Your task to perform on an android device: Open Maps and search for coffee Image 0: 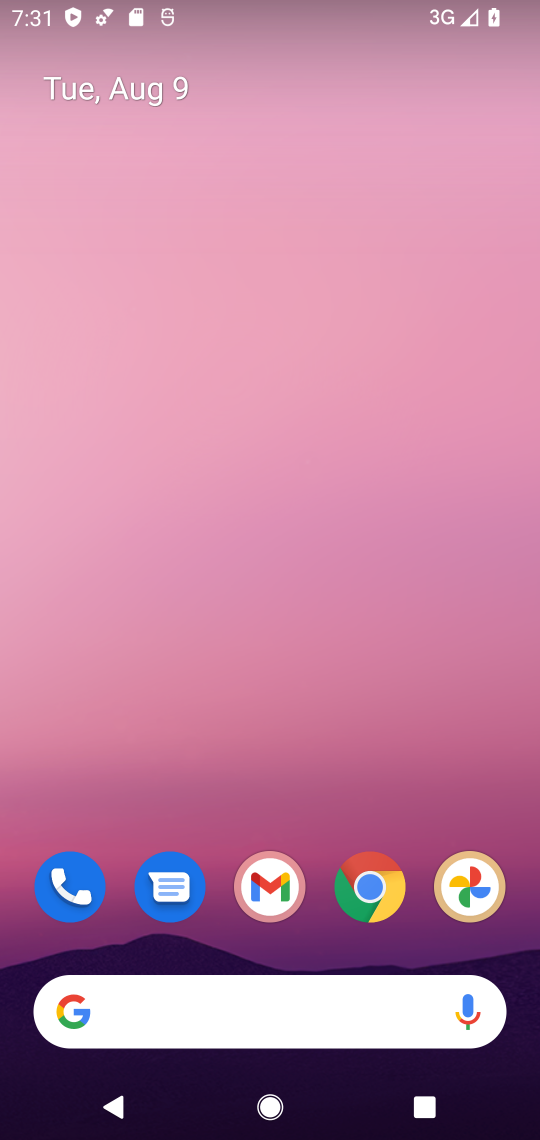
Step 0: drag from (286, 809) to (297, 16)
Your task to perform on an android device: Open Maps and search for coffee Image 1: 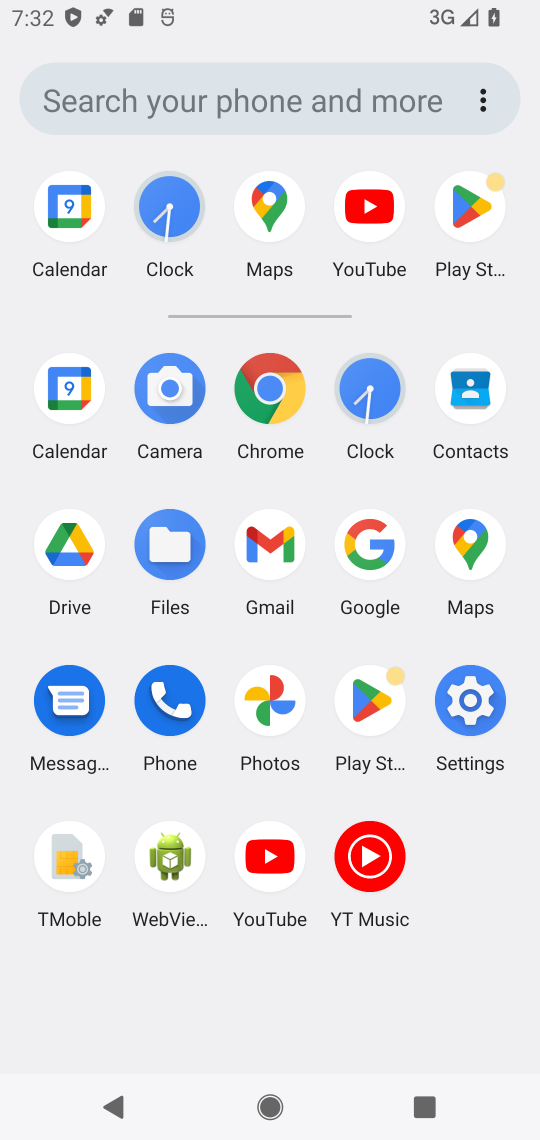
Step 1: click (271, 204)
Your task to perform on an android device: Open Maps and search for coffee Image 2: 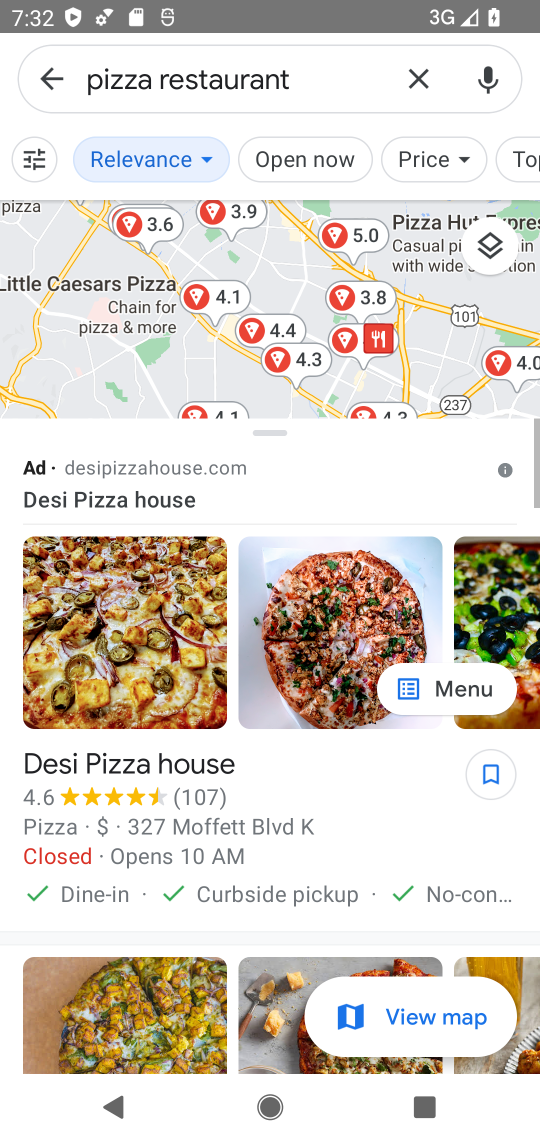
Step 2: click (412, 68)
Your task to perform on an android device: Open Maps and search for coffee Image 3: 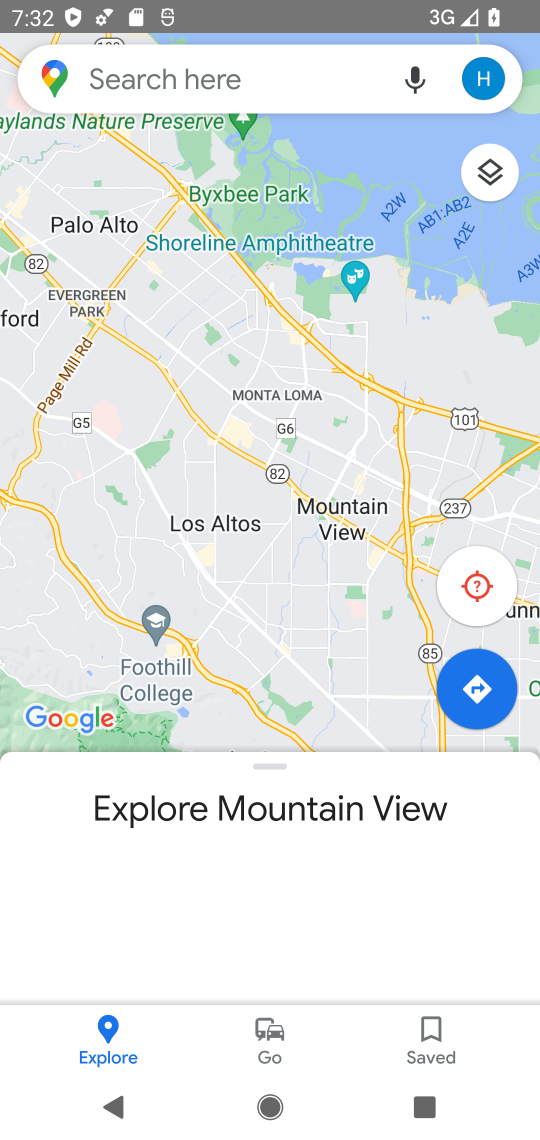
Step 3: click (317, 80)
Your task to perform on an android device: Open Maps and search for coffee Image 4: 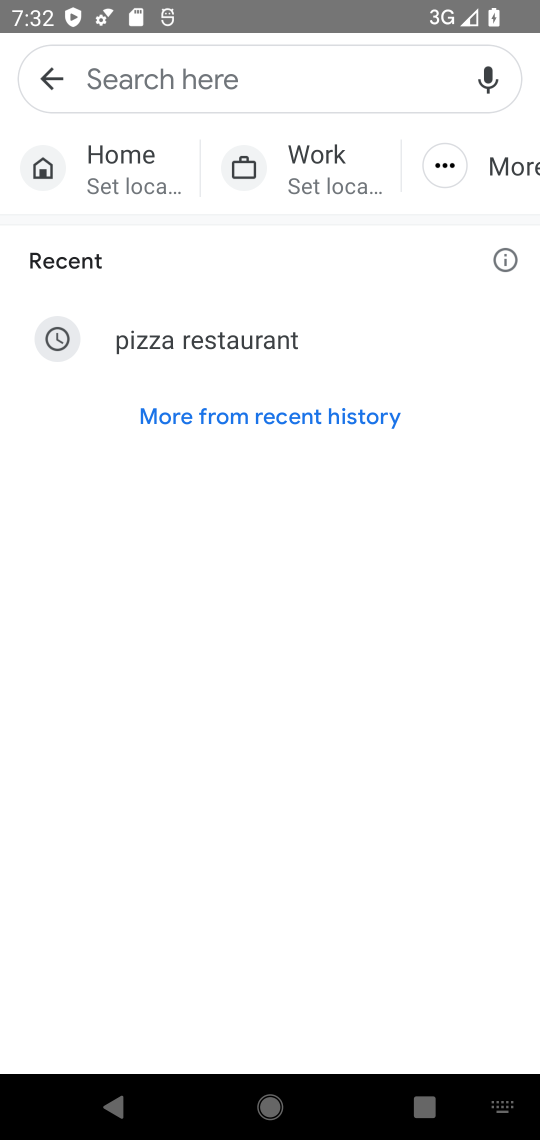
Step 4: type "coffee"
Your task to perform on an android device: Open Maps and search for coffee Image 5: 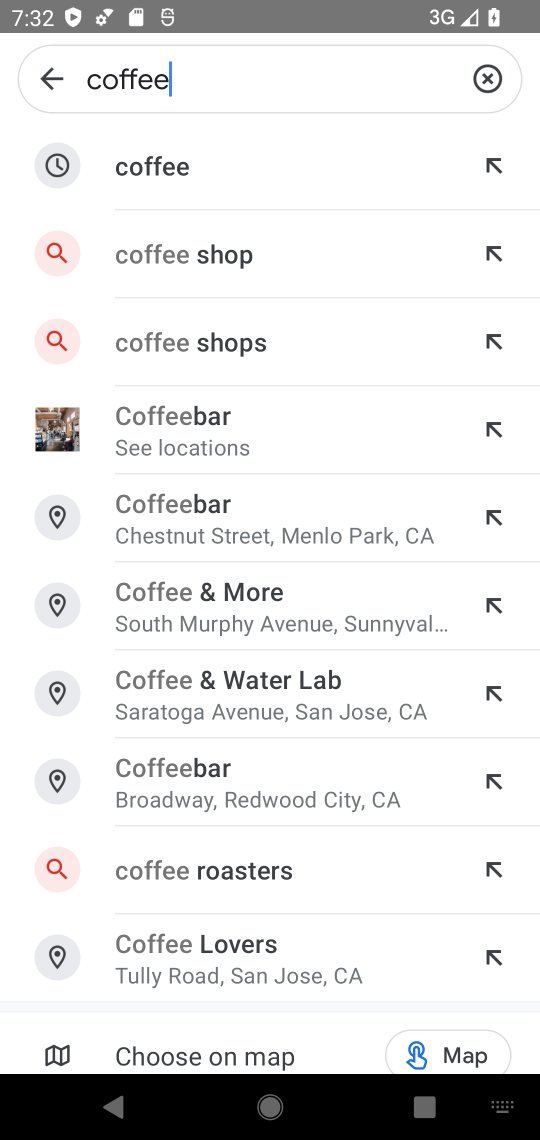
Step 5: click (185, 165)
Your task to perform on an android device: Open Maps and search for coffee Image 6: 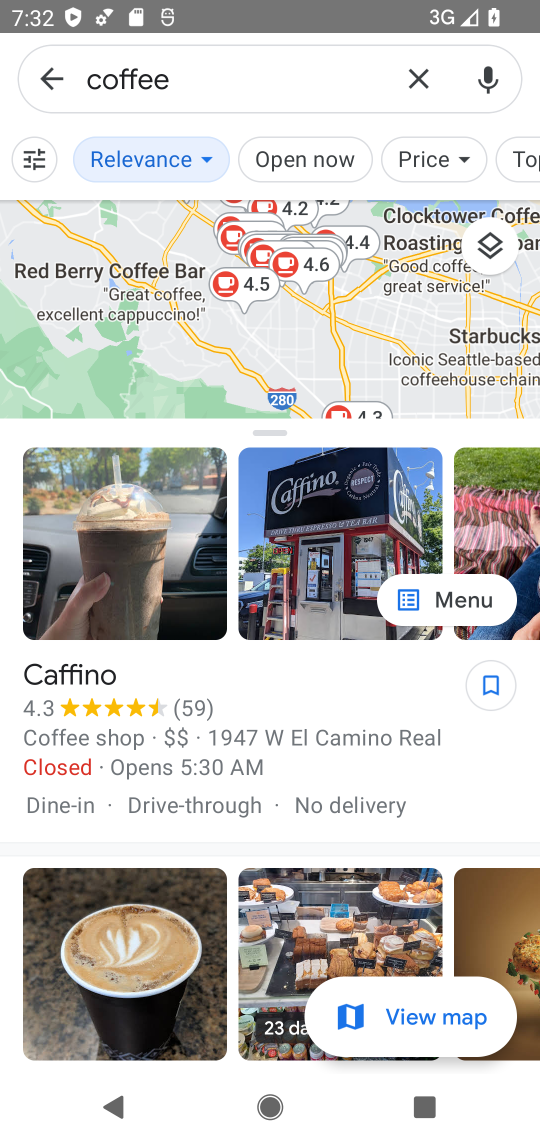
Step 6: task complete